Your task to perform on an android device: empty trash in google photos Image 0: 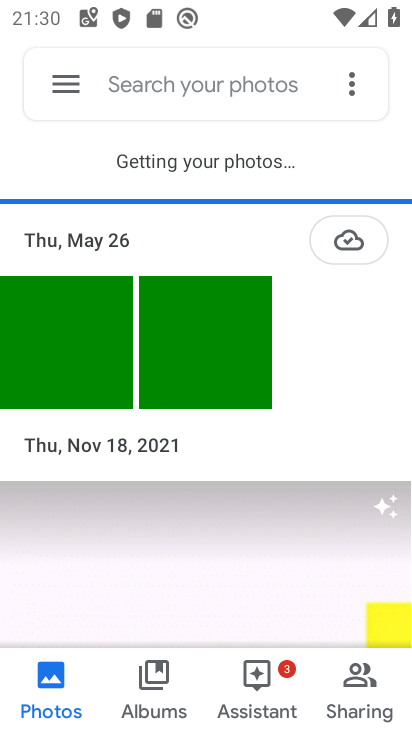
Step 0: press home button
Your task to perform on an android device: empty trash in google photos Image 1: 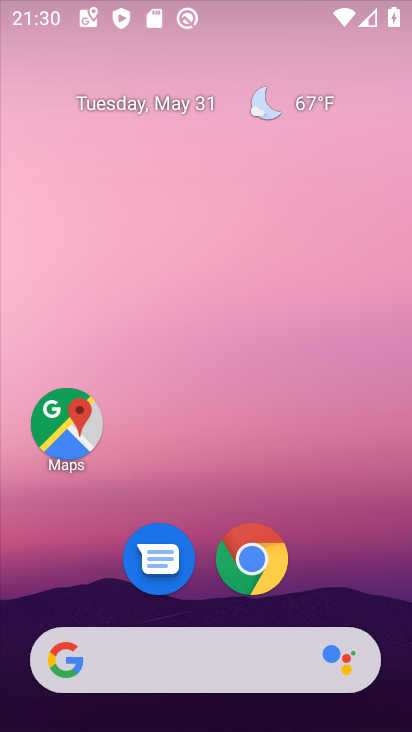
Step 1: drag from (322, 597) to (338, 64)
Your task to perform on an android device: empty trash in google photos Image 2: 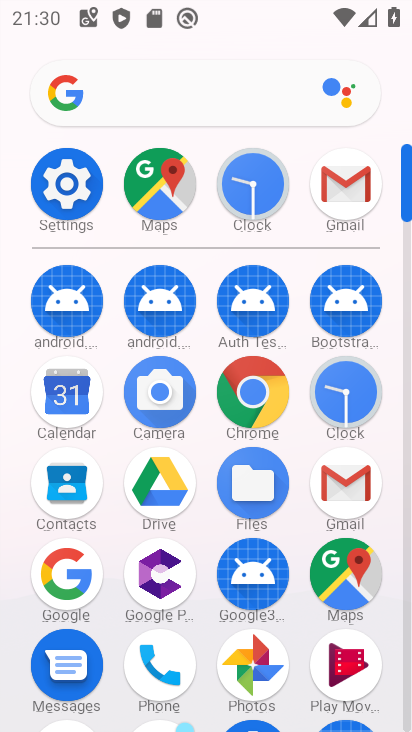
Step 2: click (257, 665)
Your task to perform on an android device: empty trash in google photos Image 3: 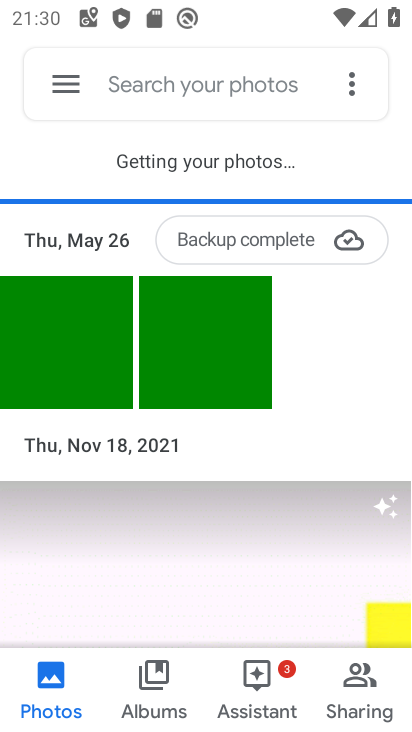
Step 3: click (63, 86)
Your task to perform on an android device: empty trash in google photos Image 4: 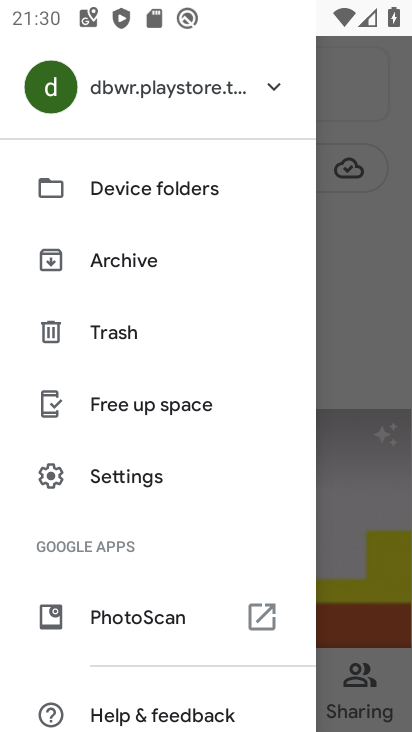
Step 4: click (103, 332)
Your task to perform on an android device: empty trash in google photos Image 5: 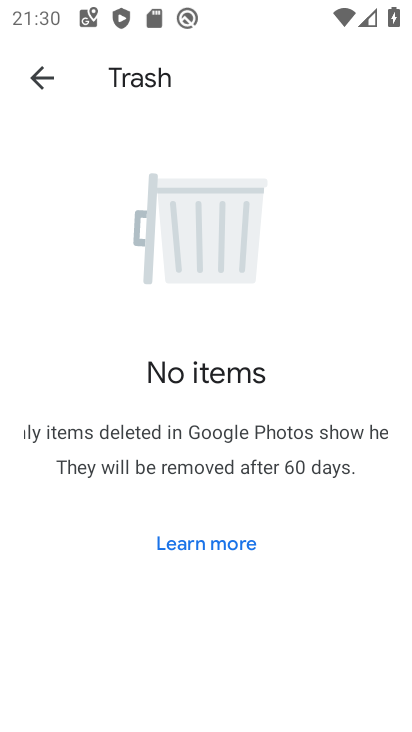
Step 5: task complete